Your task to perform on an android device: Search for hotels in Austin Image 0: 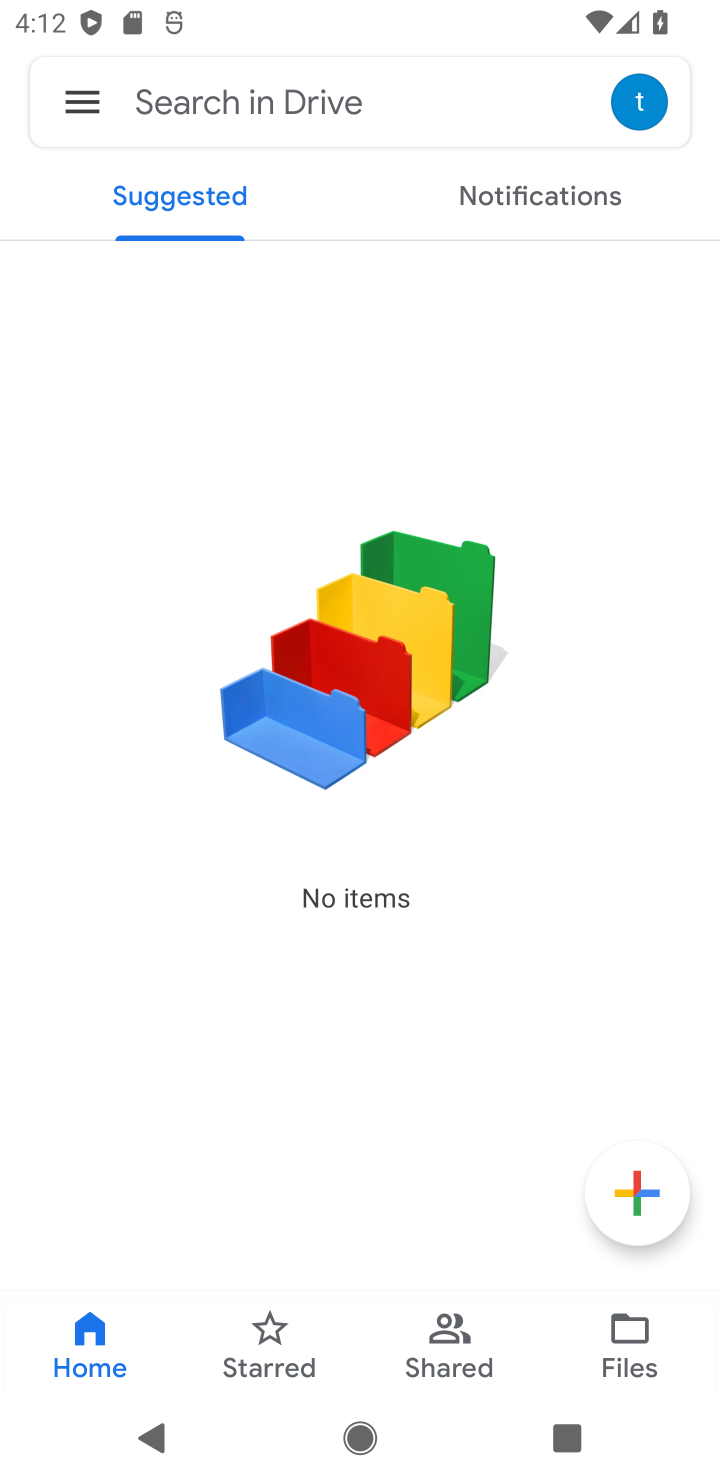
Step 0: press home button
Your task to perform on an android device: Search for hotels in Austin Image 1: 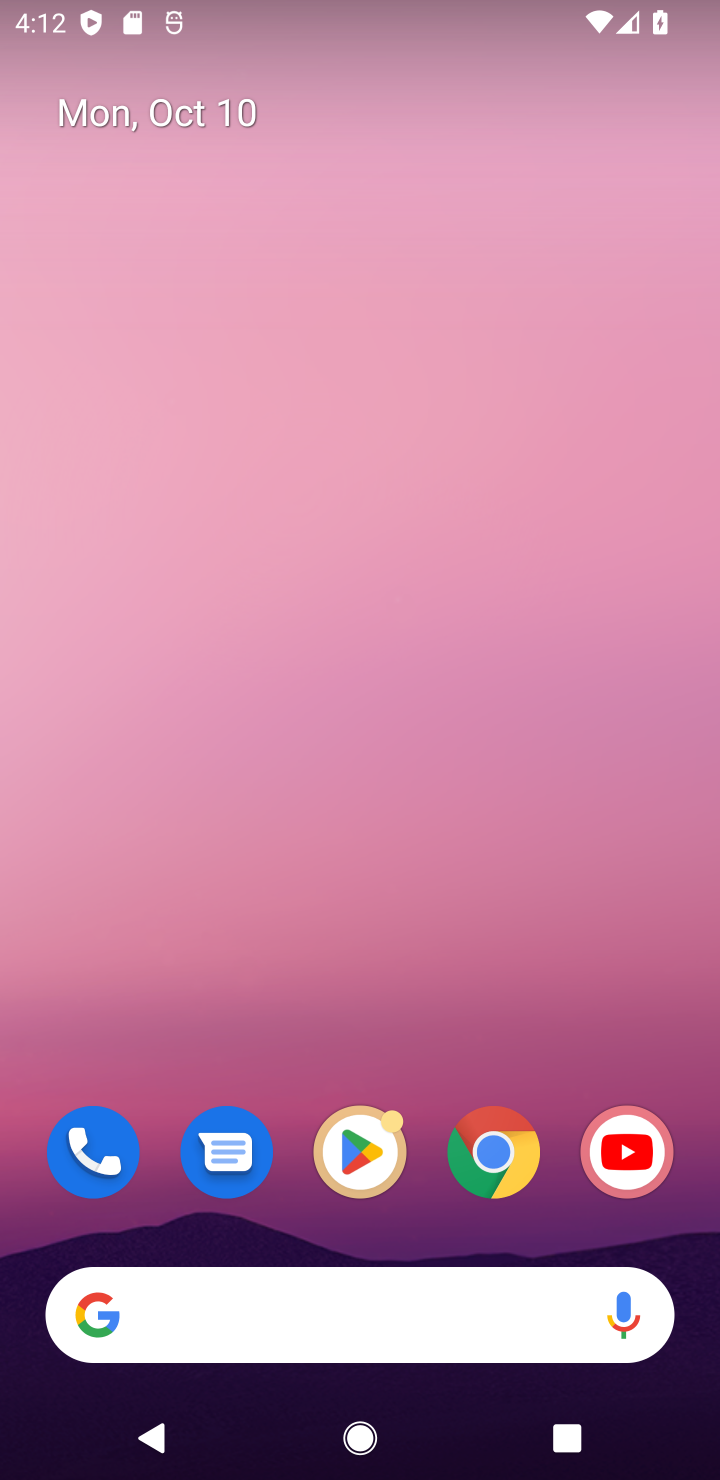
Step 1: click (360, 1147)
Your task to perform on an android device: Search for hotels in Austin Image 2: 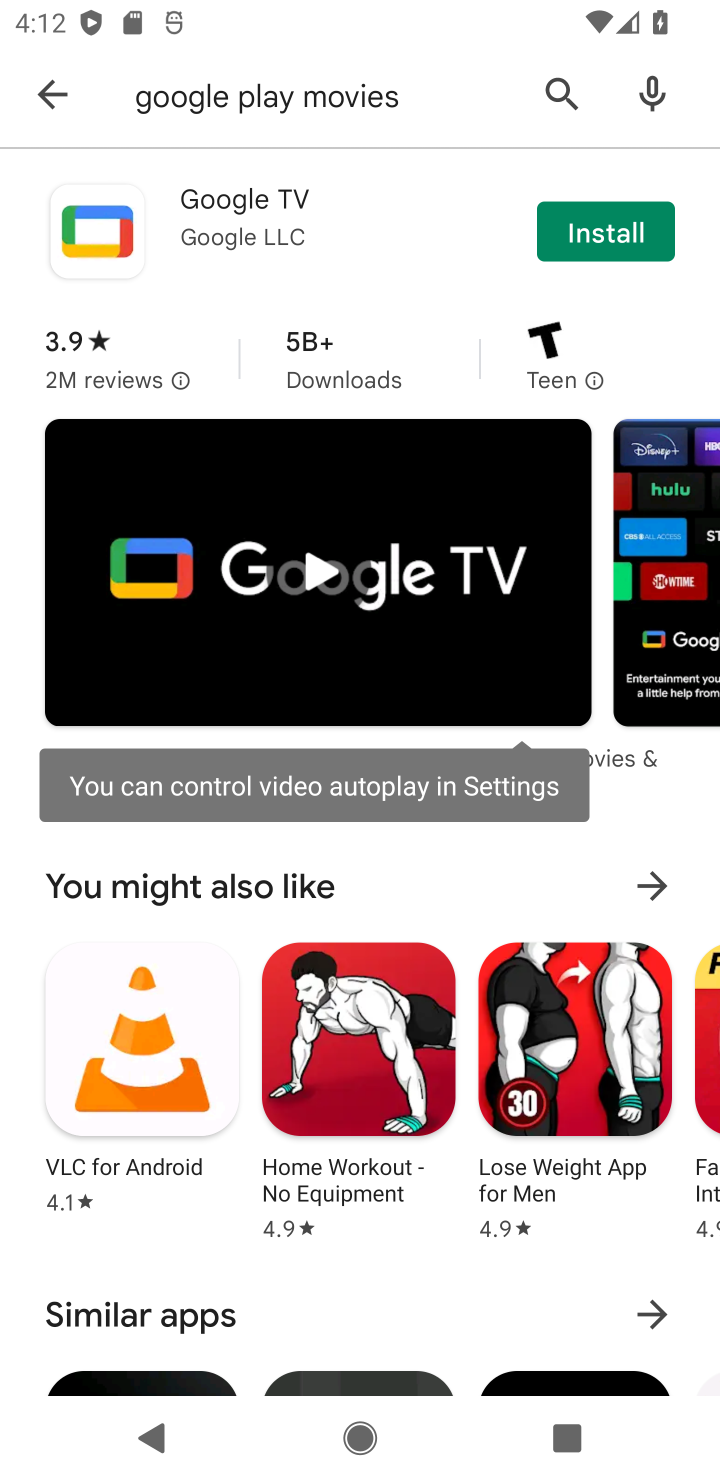
Step 2: click (555, 90)
Your task to perform on an android device: Search for hotels in Austin Image 3: 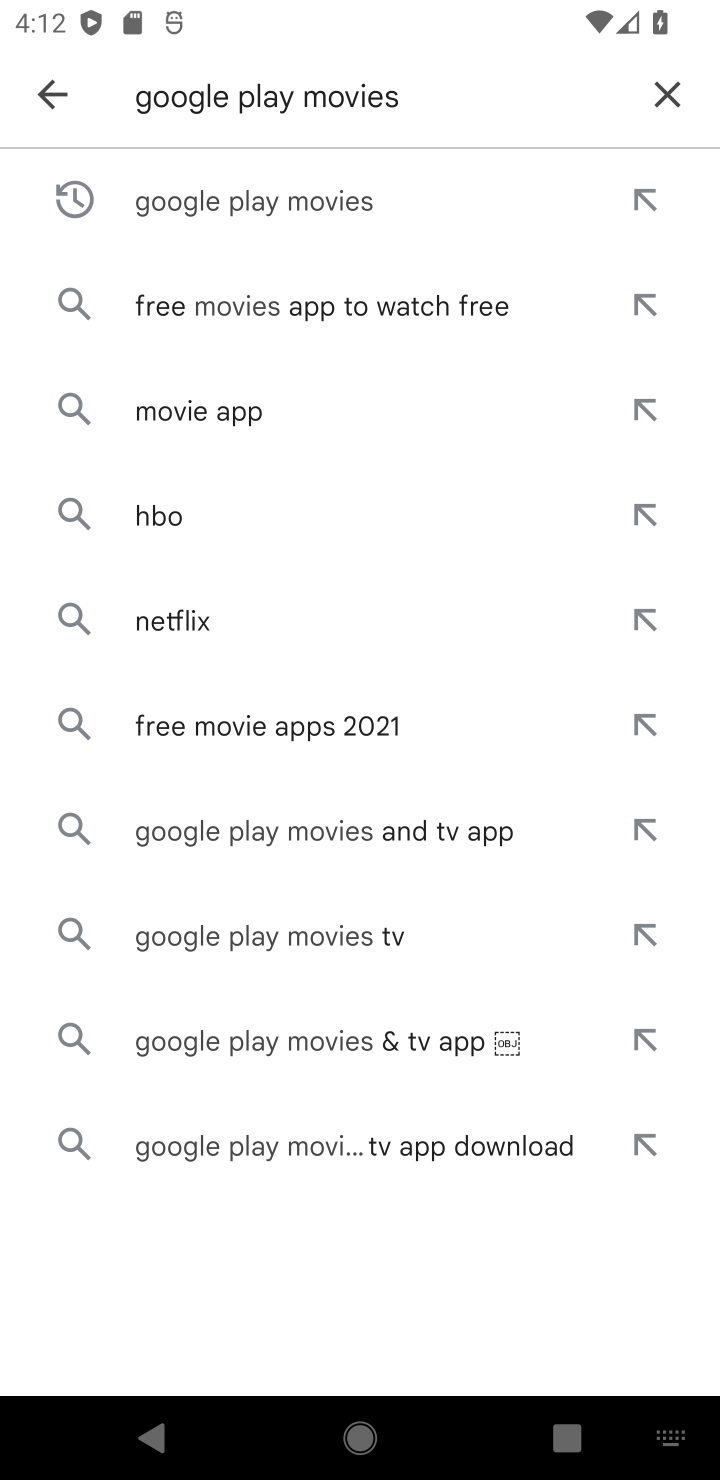
Step 3: click (663, 104)
Your task to perform on an android device: Search for hotels in Austin Image 4: 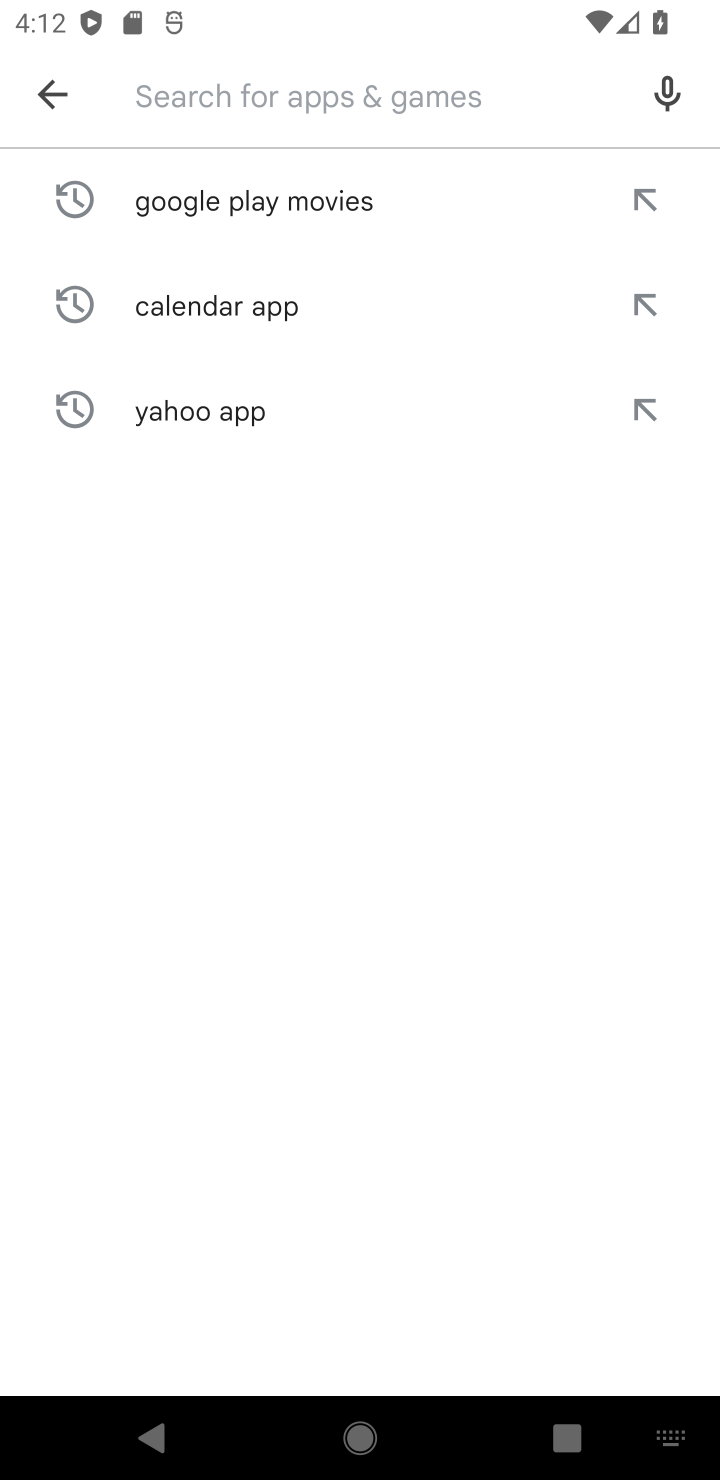
Step 4: type "hotels in Austin"
Your task to perform on an android device: Search for hotels in Austin Image 5: 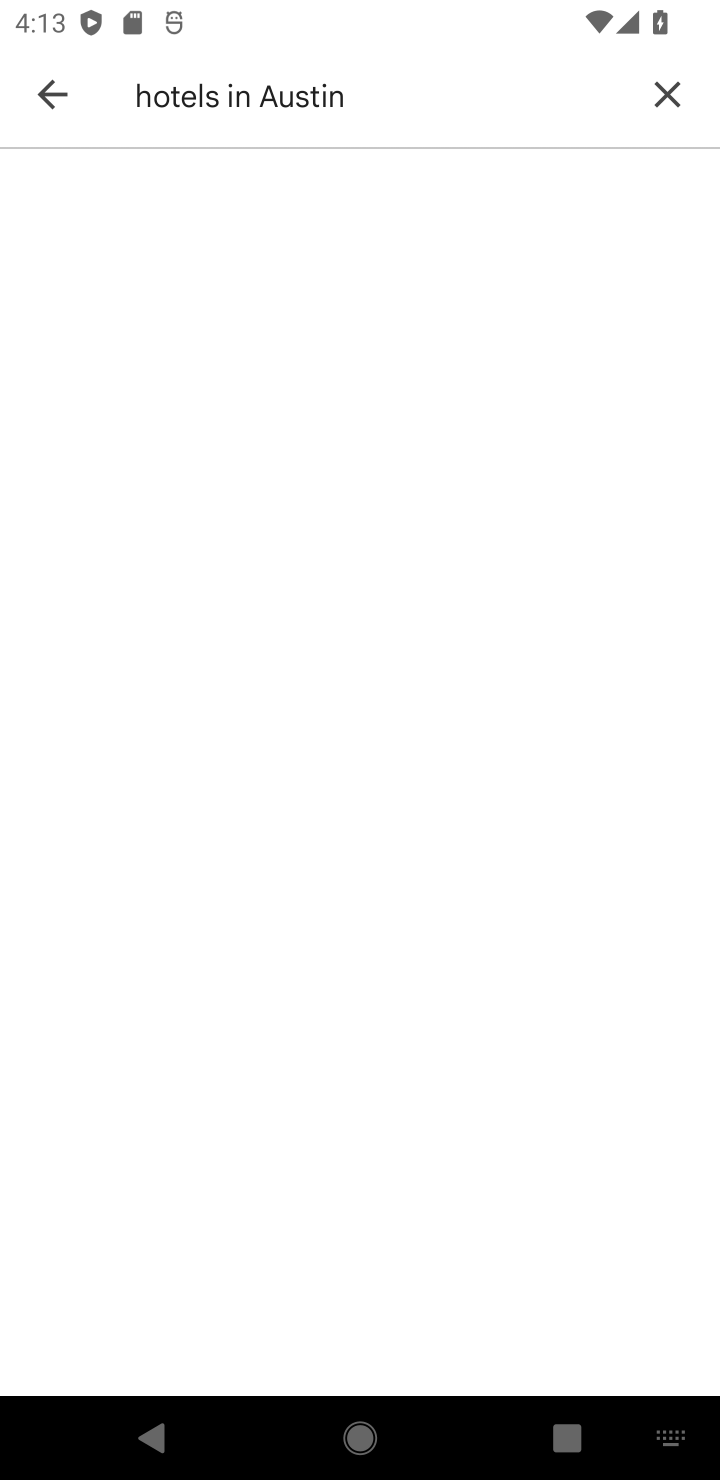
Step 5: click (412, 105)
Your task to perform on an android device: Search for hotels in Austin Image 6: 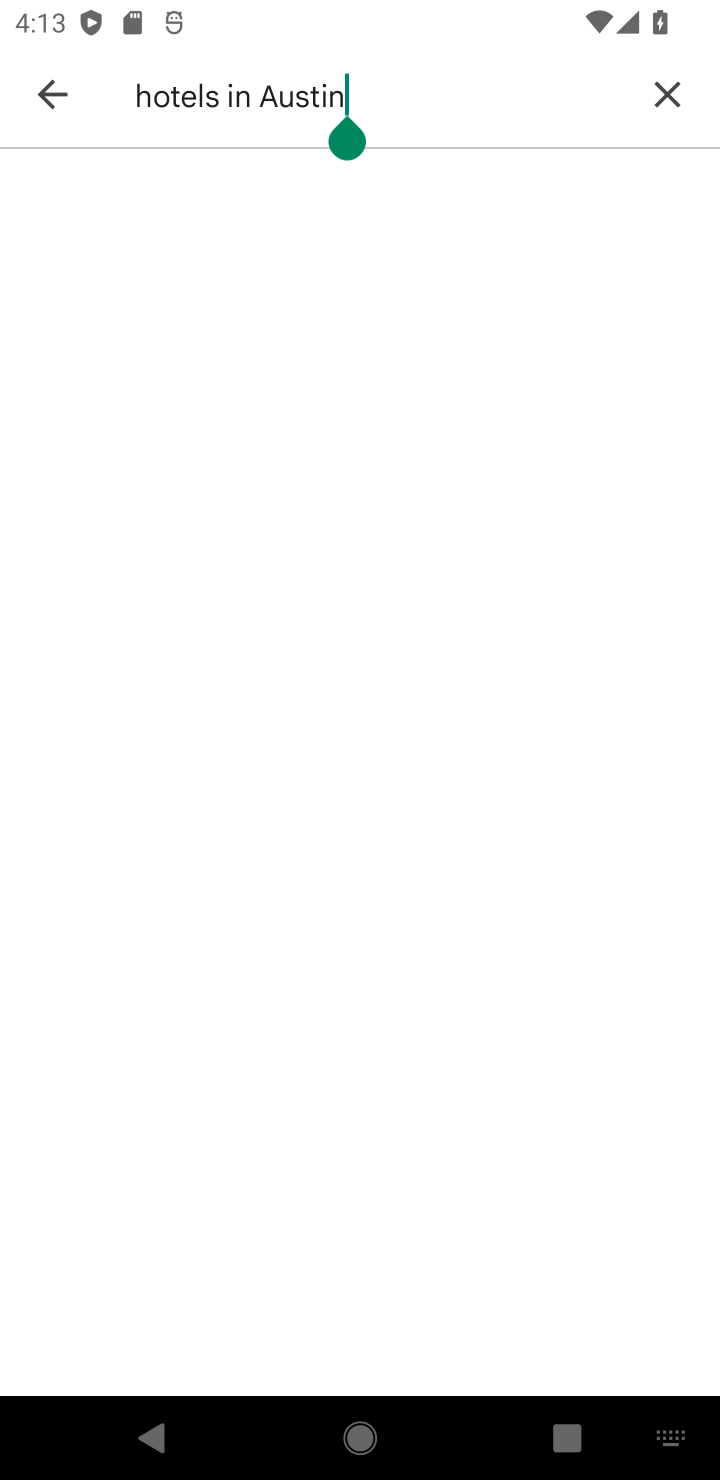
Step 6: click (661, 94)
Your task to perform on an android device: Search for hotels in Austin Image 7: 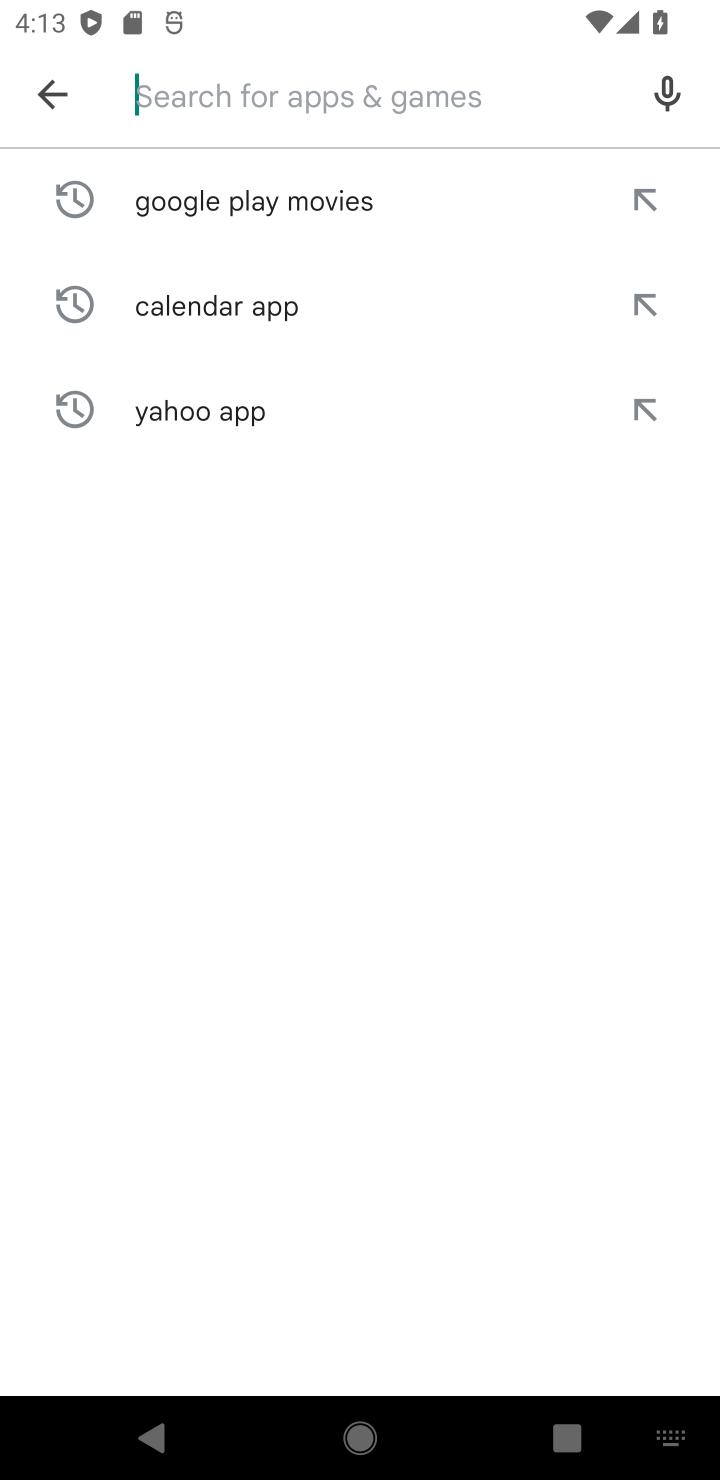
Step 7: click (424, 105)
Your task to perform on an android device: Search for hotels in Austin Image 8: 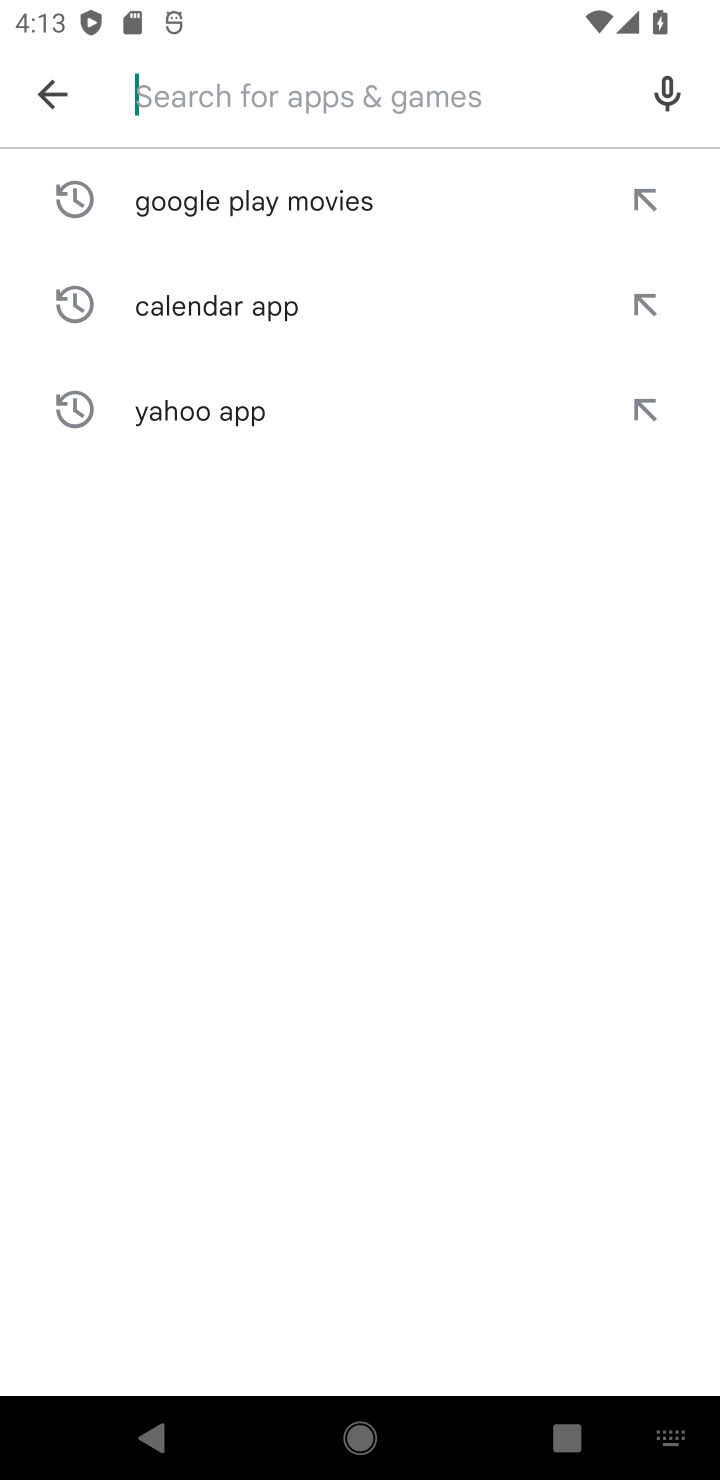
Step 8: type "Hotel in Austin"
Your task to perform on an android device: Search for hotels in Austin Image 9: 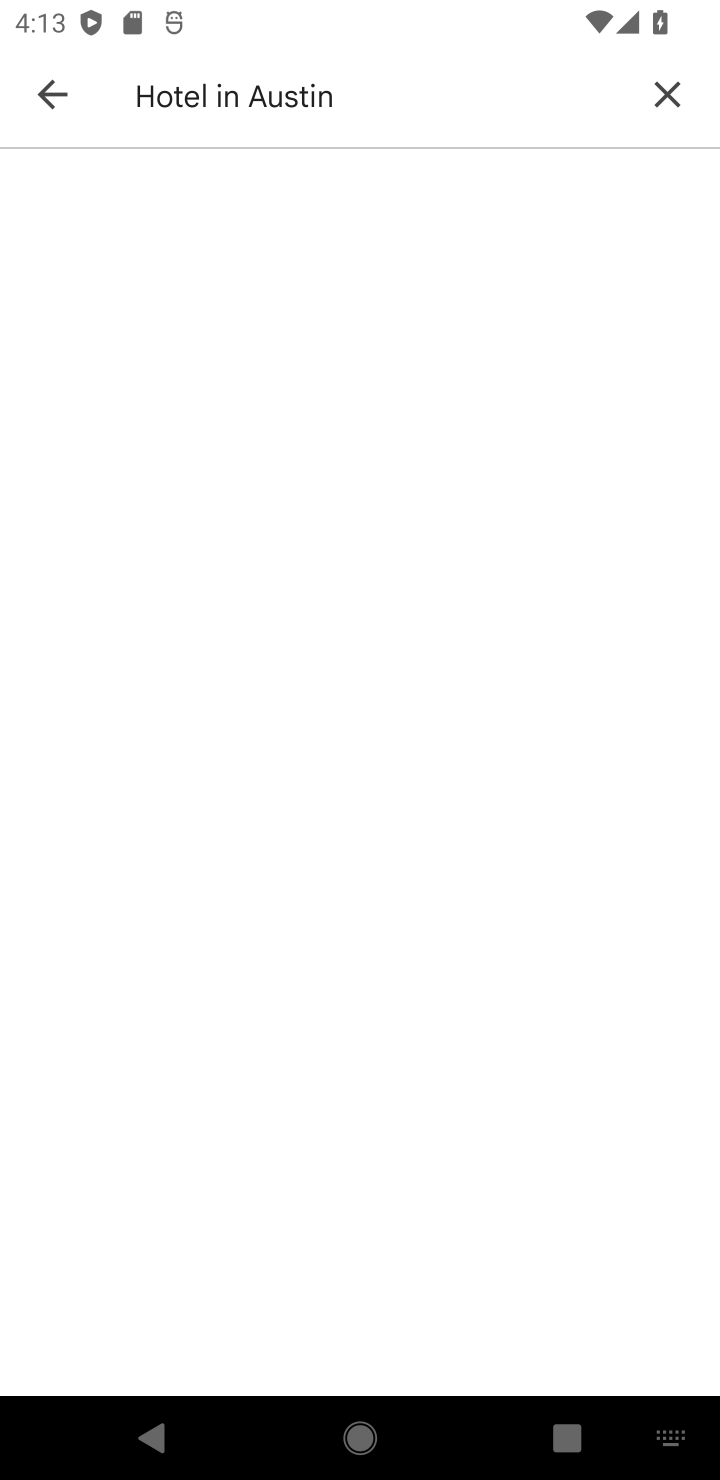
Step 9: task complete